Your task to perform on an android device: Open Google Chrome Image 0: 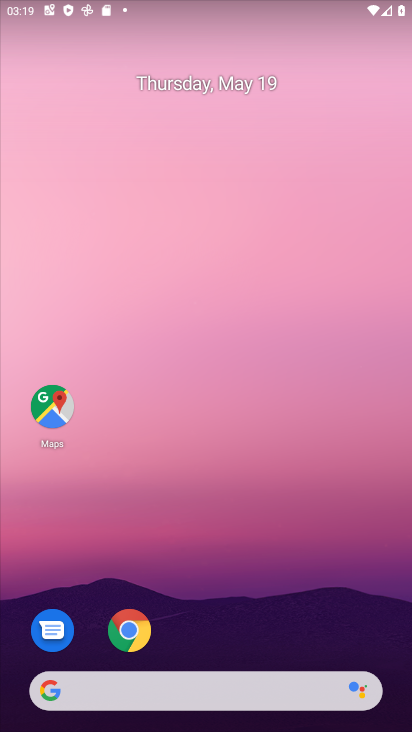
Step 0: click (130, 629)
Your task to perform on an android device: Open Google Chrome Image 1: 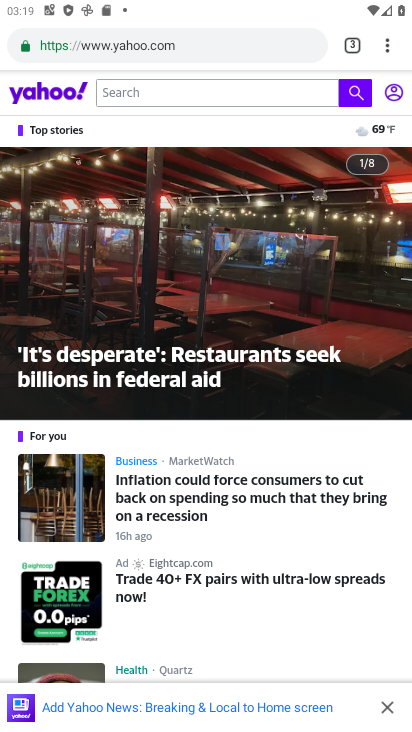
Step 1: task complete